Your task to perform on an android device: Open Android settings Image 0: 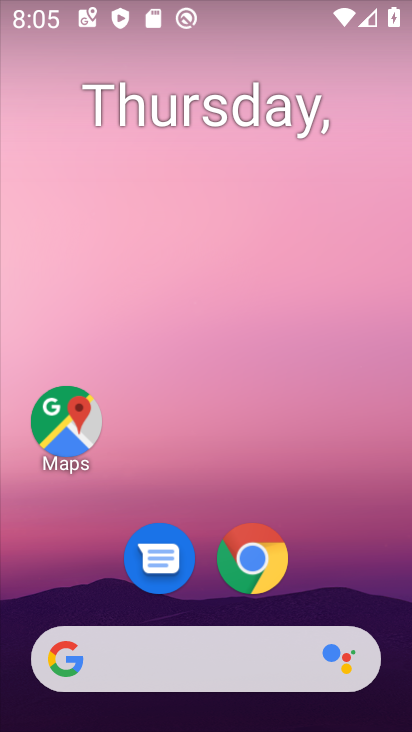
Step 0: drag from (215, 627) to (231, 139)
Your task to perform on an android device: Open Android settings Image 1: 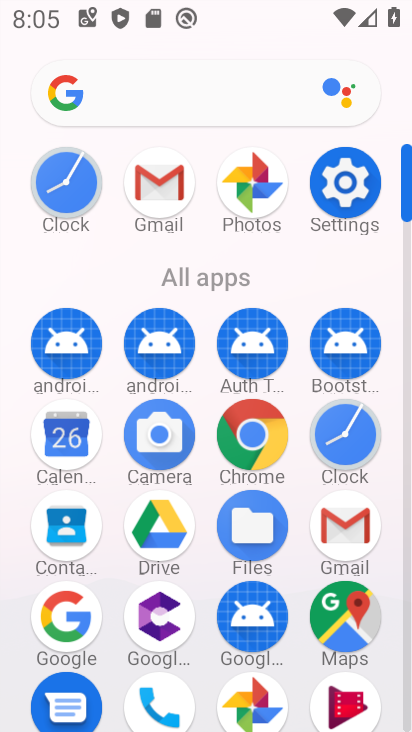
Step 1: click (359, 186)
Your task to perform on an android device: Open Android settings Image 2: 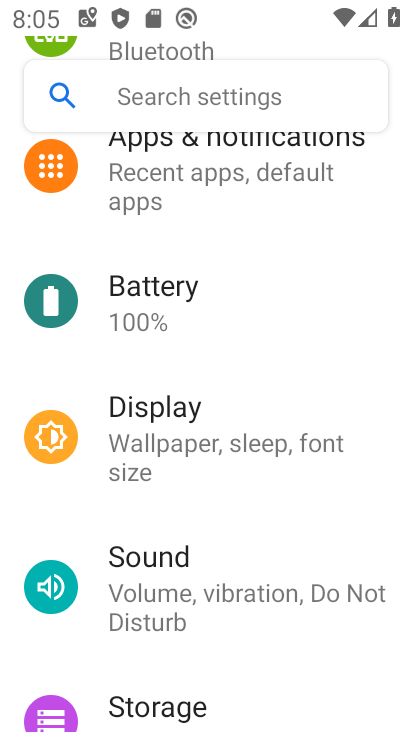
Step 2: drag from (201, 629) to (228, 254)
Your task to perform on an android device: Open Android settings Image 3: 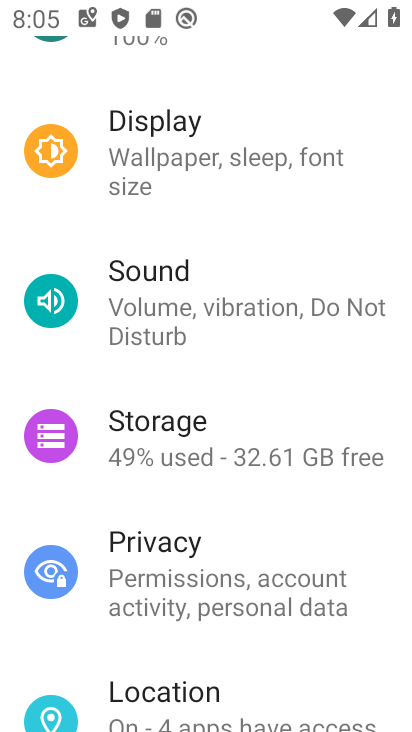
Step 3: click (183, 723)
Your task to perform on an android device: Open Android settings Image 4: 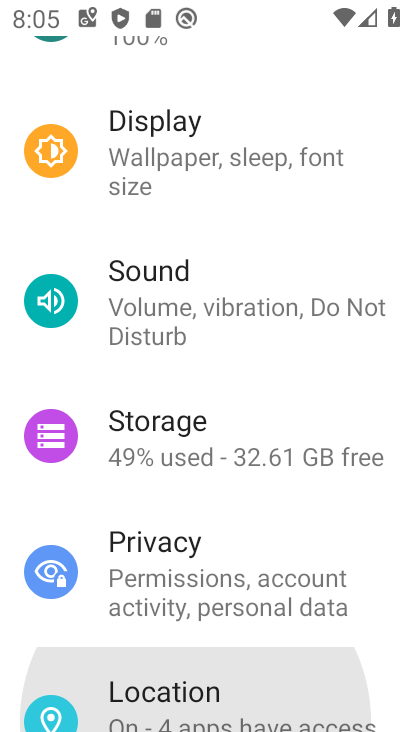
Step 4: drag from (183, 723) to (208, 271)
Your task to perform on an android device: Open Android settings Image 5: 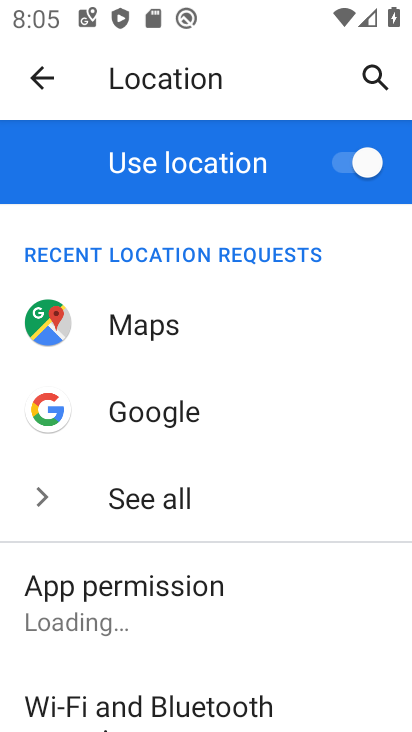
Step 5: click (41, 72)
Your task to perform on an android device: Open Android settings Image 6: 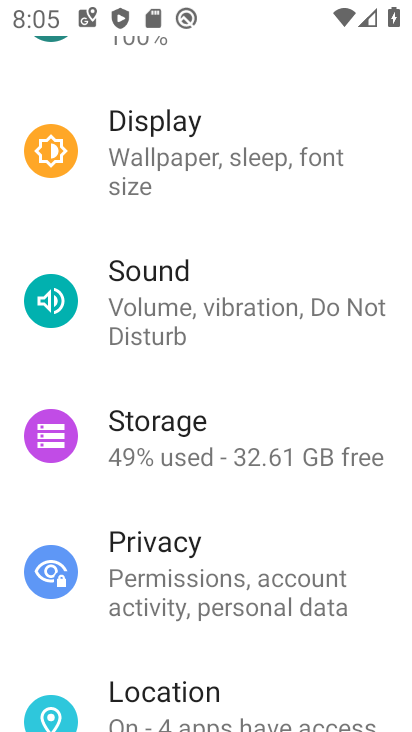
Step 6: task complete